Your task to perform on an android device: Go to Reddit.com Image 0: 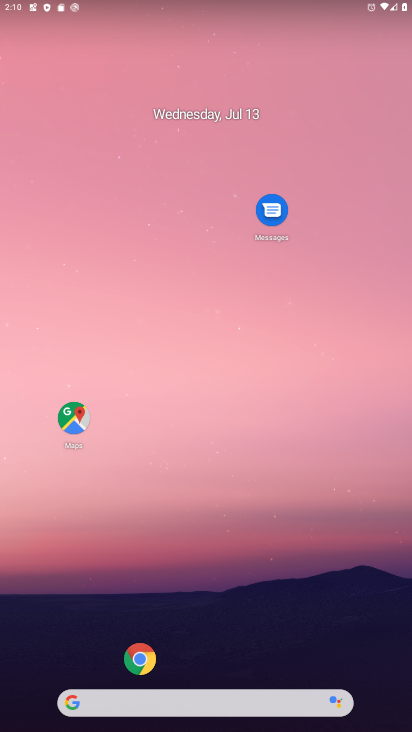
Step 0: click (129, 701)
Your task to perform on an android device: Go to Reddit.com Image 1: 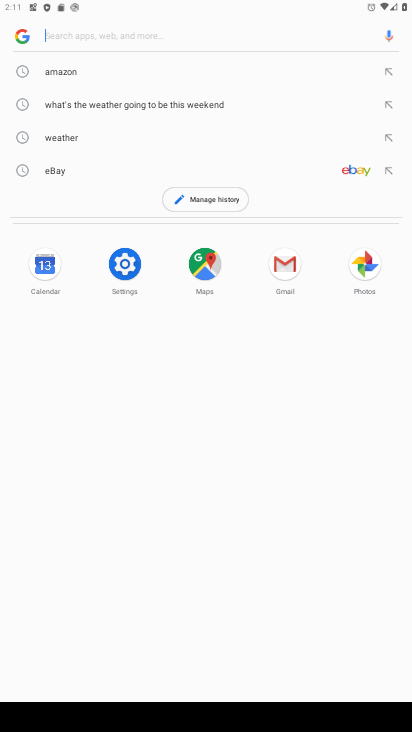
Step 1: type "Reddit.com"
Your task to perform on an android device: Go to Reddit.com Image 2: 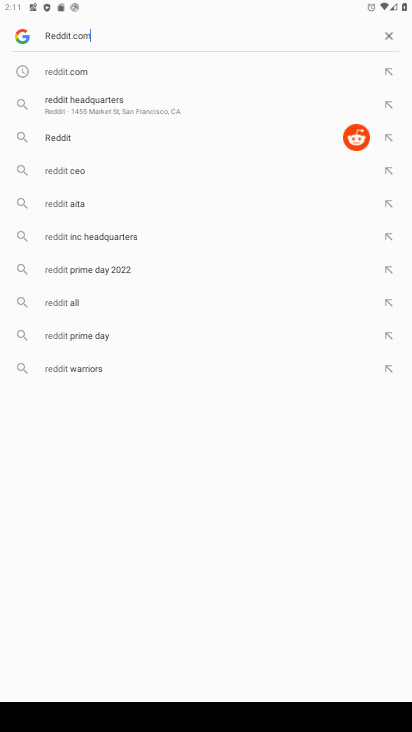
Step 2: type ""
Your task to perform on an android device: Go to Reddit.com Image 3: 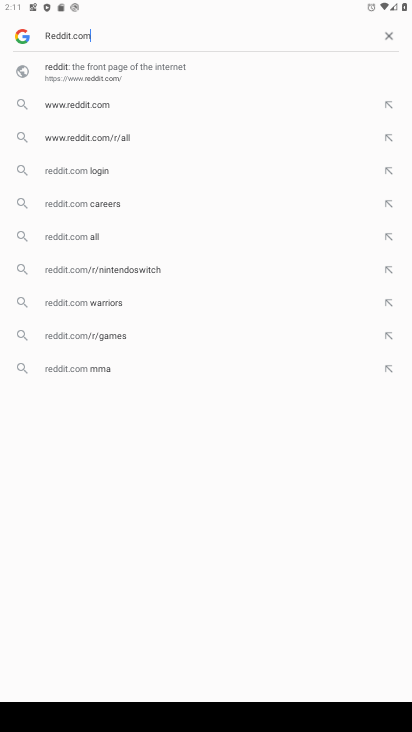
Step 3: click (83, 96)
Your task to perform on an android device: Go to Reddit.com Image 4: 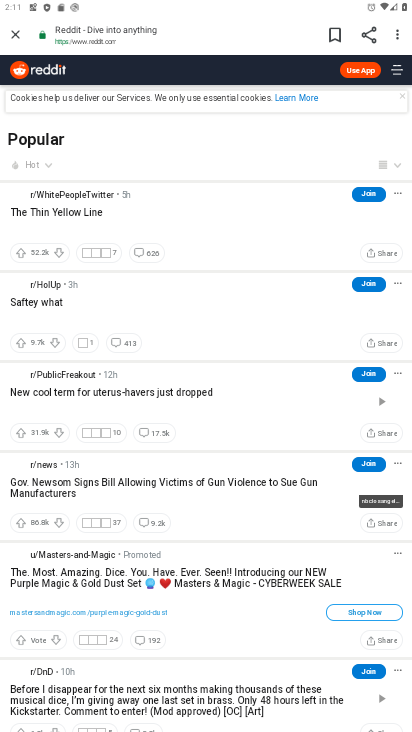
Step 4: task complete